Your task to perform on an android device: open a bookmark in the chrome app Image 0: 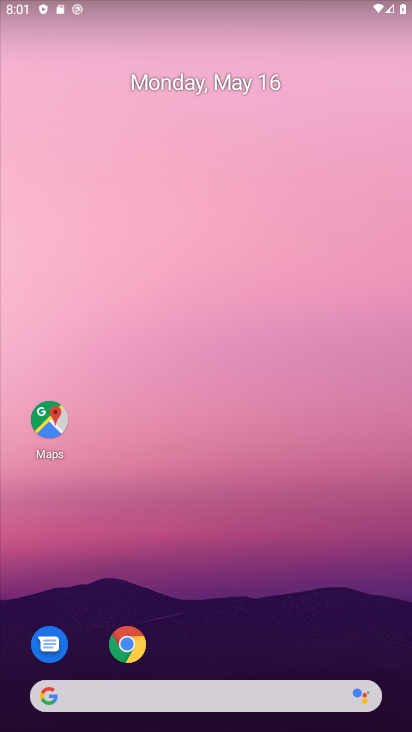
Step 0: click (127, 645)
Your task to perform on an android device: open a bookmark in the chrome app Image 1: 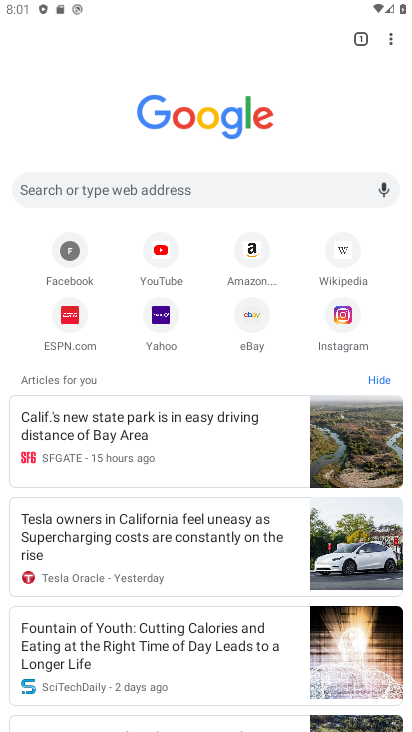
Step 1: click (387, 38)
Your task to perform on an android device: open a bookmark in the chrome app Image 2: 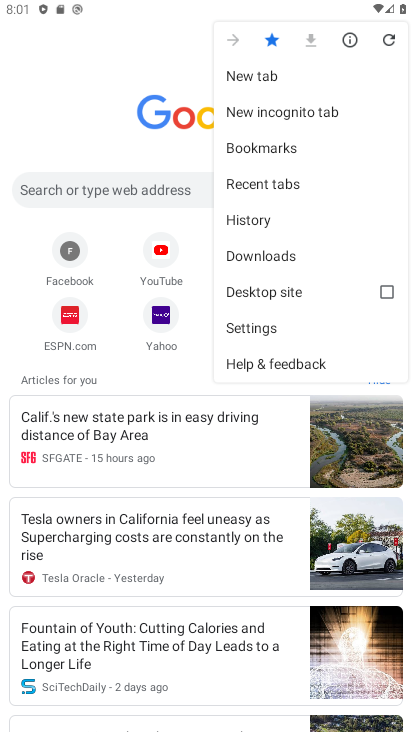
Step 2: click (264, 150)
Your task to perform on an android device: open a bookmark in the chrome app Image 3: 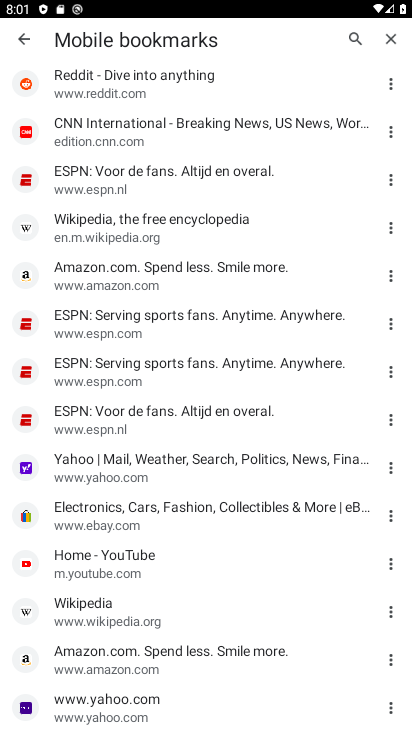
Step 3: click (97, 277)
Your task to perform on an android device: open a bookmark in the chrome app Image 4: 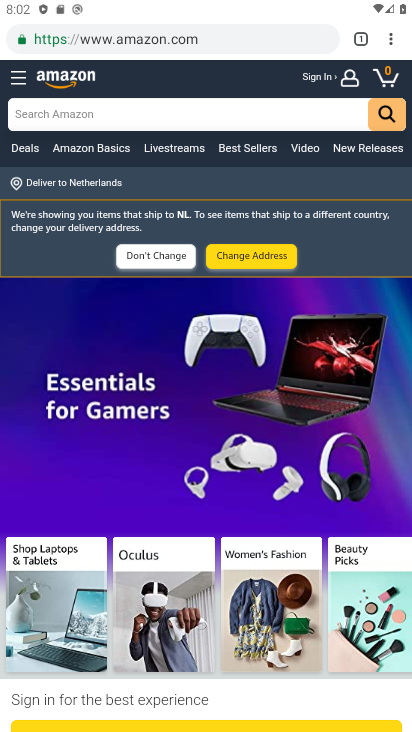
Step 4: task complete